Your task to perform on an android device: delete browsing data in the chrome app Image 0: 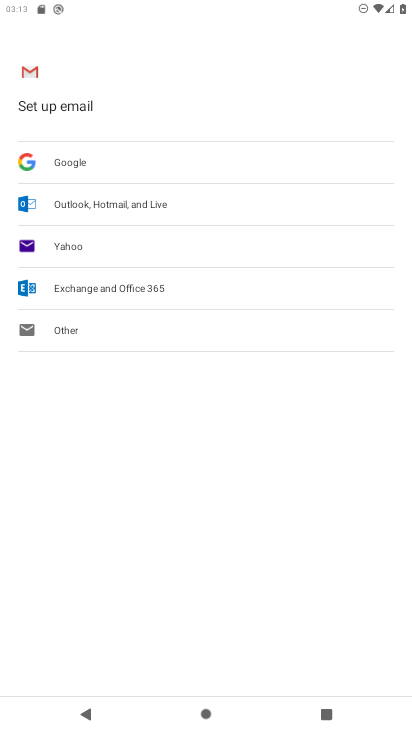
Step 0: press home button
Your task to perform on an android device: delete browsing data in the chrome app Image 1: 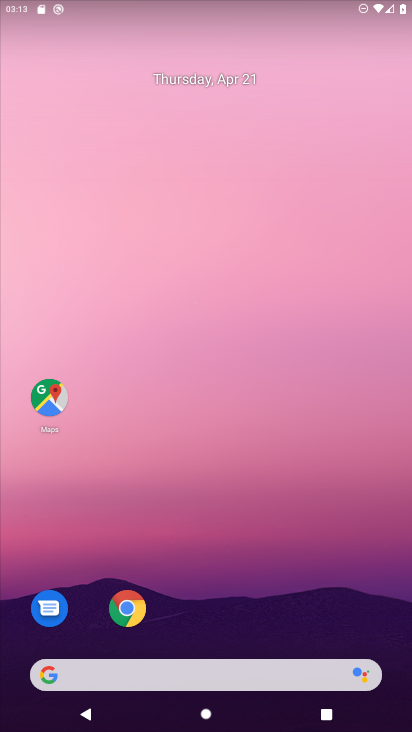
Step 1: drag from (232, 600) to (197, 173)
Your task to perform on an android device: delete browsing data in the chrome app Image 2: 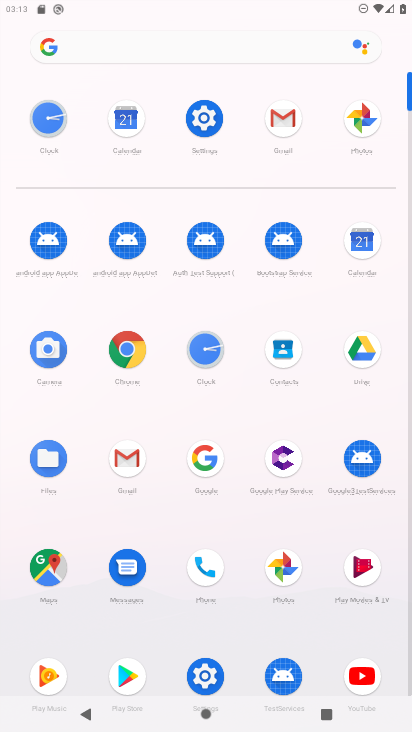
Step 2: click (120, 349)
Your task to perform on an android device: delete browsing data in the chrome app Image 3: 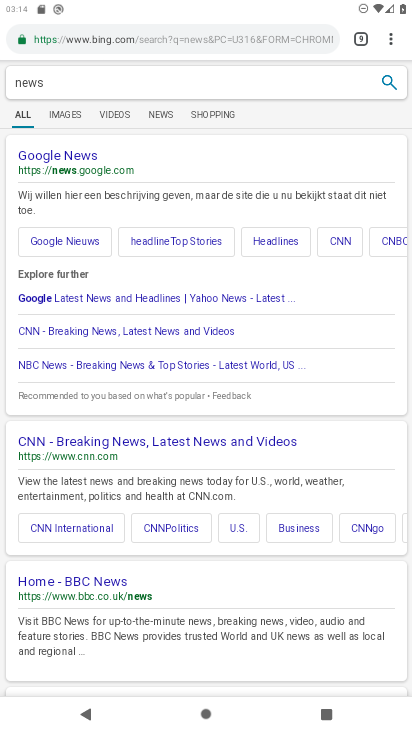
Step 3: click (391, 42)
Your task to perform on an android device: delete browsing data in the chrome app Image 4: 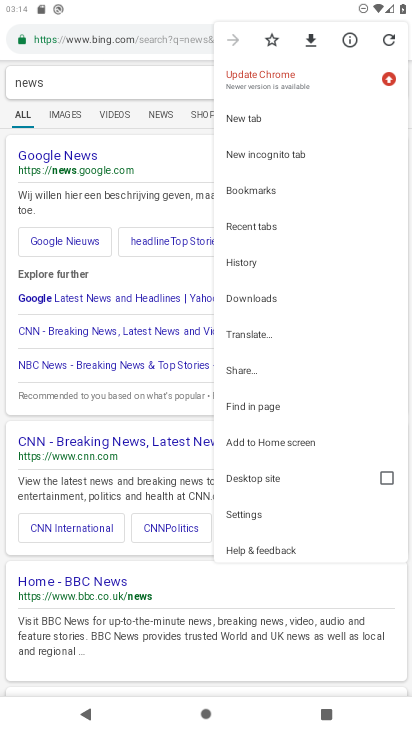
Step 4: click (256, 263)
Your task to perform on an android device: delete browsing data in the chrome app Image 5: 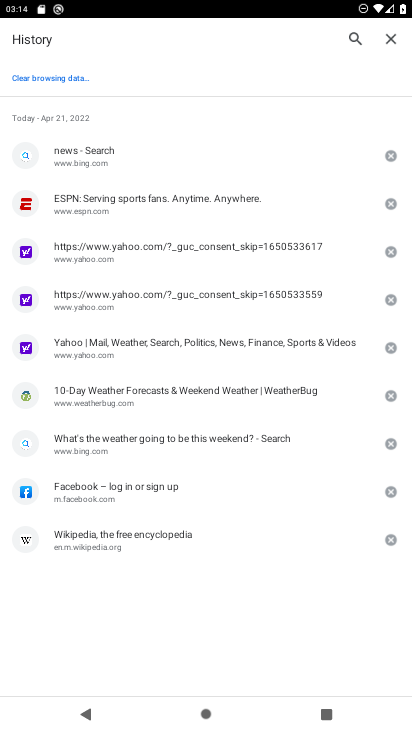
Step 5: click (65, 69)
Your task to perform on an android device: delete browsing data in the chrome app Image 6: 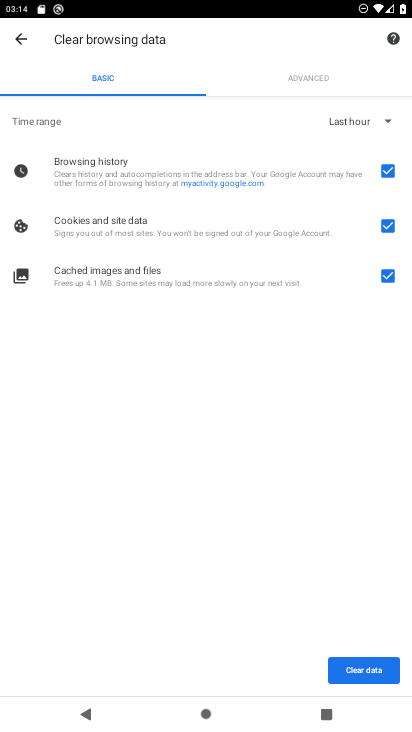
Step 6: click (370, 664)
Your task to perform on an android device: delete browsing data in the chrome app Image 7: 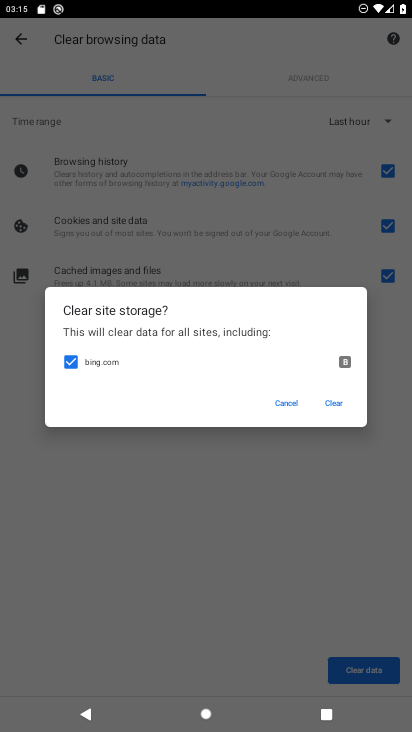
Step 7: click (326, 401)
Your task to perform on an android device: delete browsing data in the chrome app Image 8: 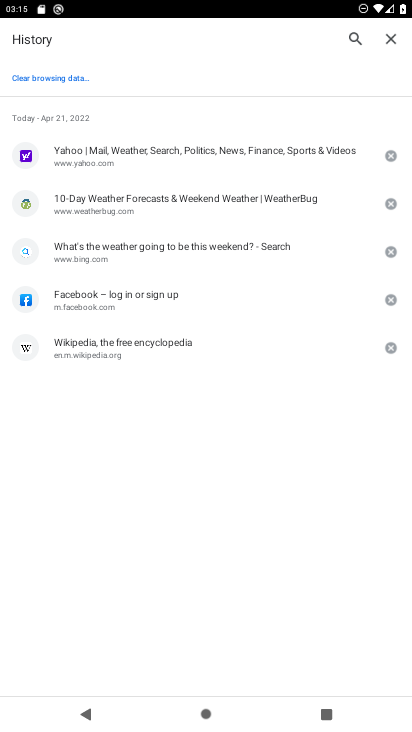
Step 8: click (36, 78)
Your task to perform on an android device: delete browsing data in the chrome app Image 9: 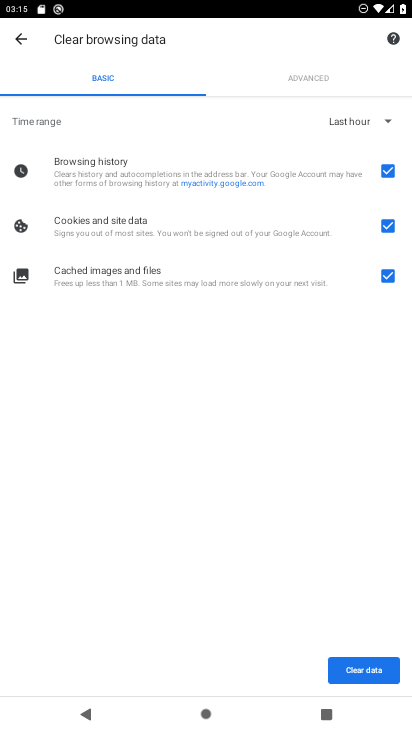
Step 9: click (338, 668)
Your task to perform on an android device: delete browsing data in the chrome app Image 10: 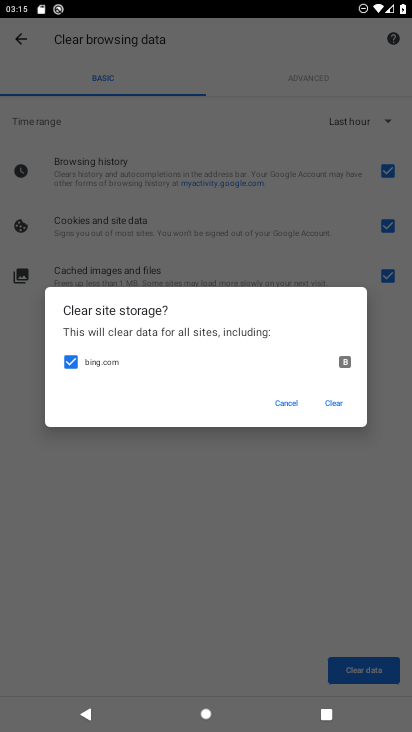
Step 10: click (324, 404)
Your task to perform on an android device: delete browsing data in the chrome app Image 11: 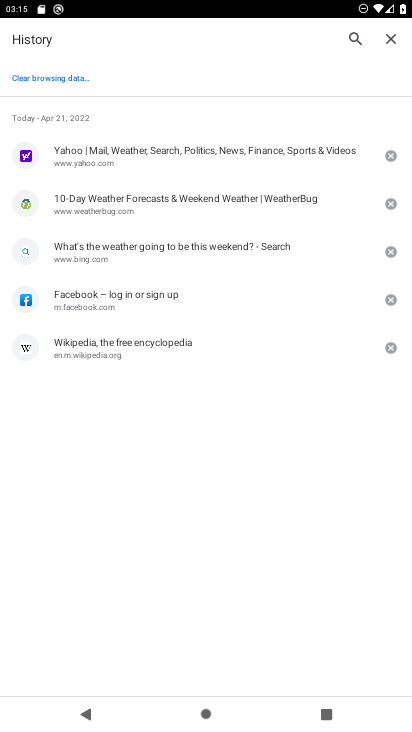
Step 11: click (371, 673)
Your task to perform on an android device: delete browsing data in the chrome app Image 12: 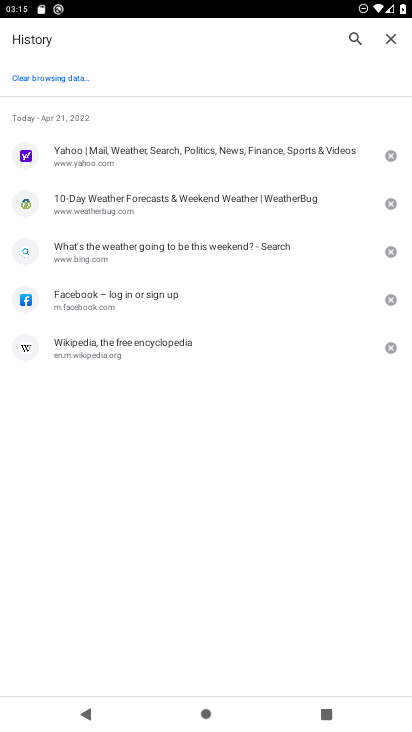
Step 12: task complete